Your task to perform on an android device: Open Chrome and go to settings Image 0: 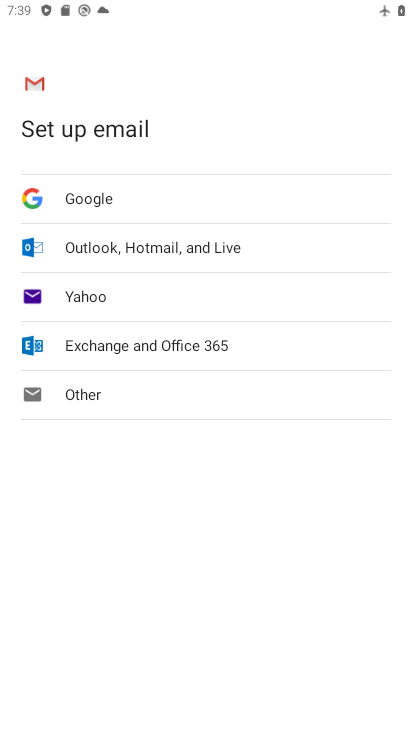
Step 0: press back button
Your task to perform on an android device: Open Chrome and go to settings Image 1: 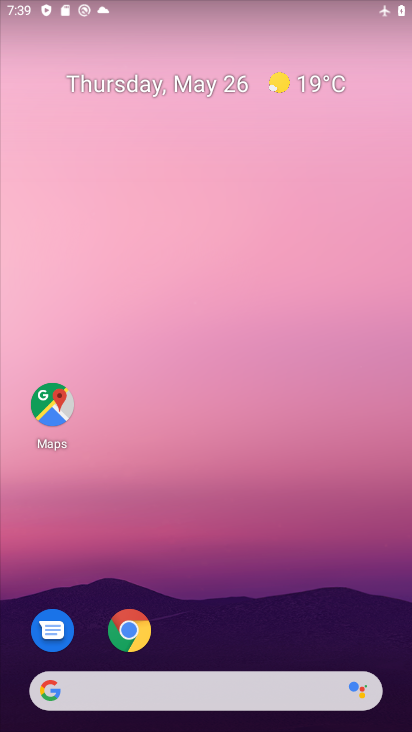
Step 1: click (129, 631)
Your task to perform on an android device: Open Chrome and go to settings Image 2: 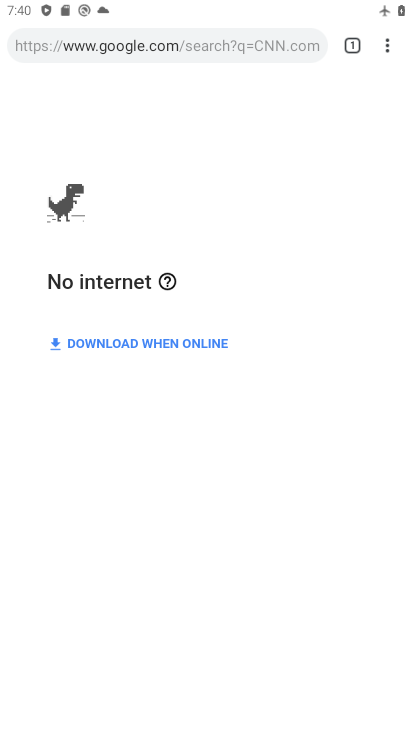
Step 2: click (388, 44)
Your task to perform on an android device: Open Chrome and go to settings Image 3: 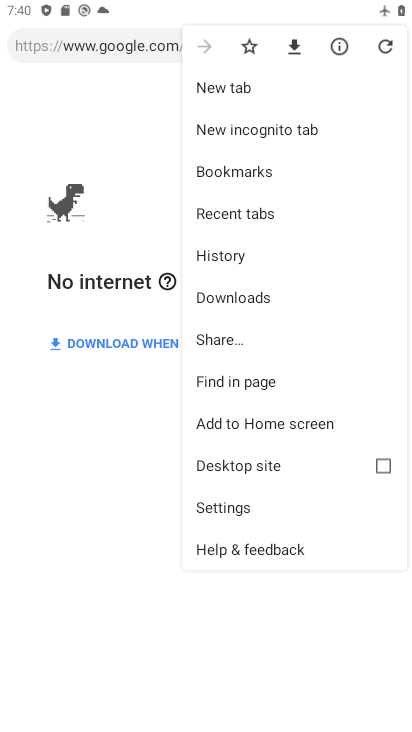
Step 3: click (239, 510)
Your task to perform on an android device: Open Chrome and go to settings Image 4: 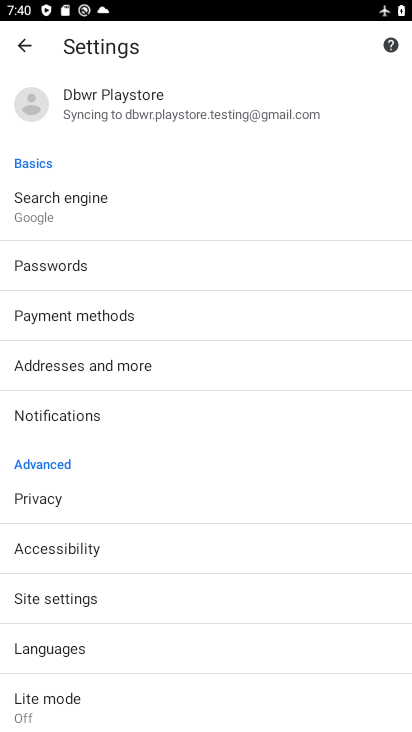
Step 4: task complete